Your task to perform on an android device: Open maps Image 0: 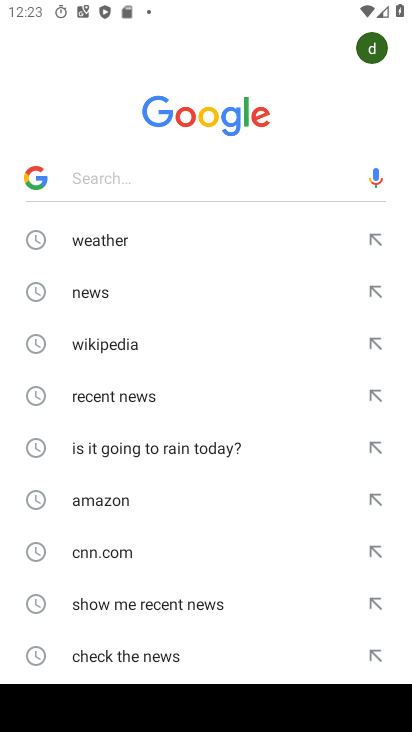
Step 0: press home button
Your task to perform on an android device: Open maps Image 1: 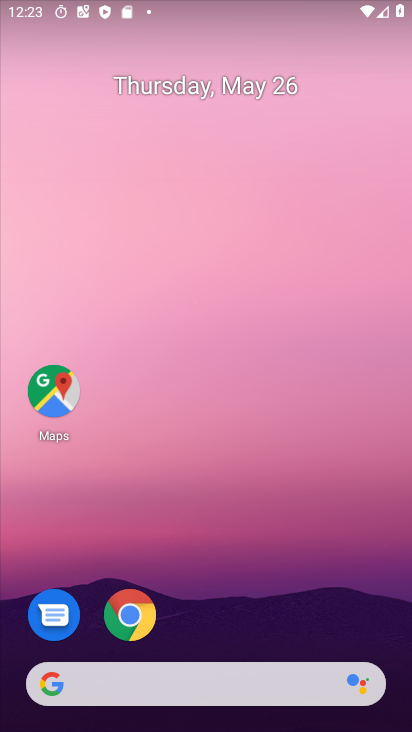
Step 1: click (65, 385)
Your task to perform on an android device: Open maps Image 2: 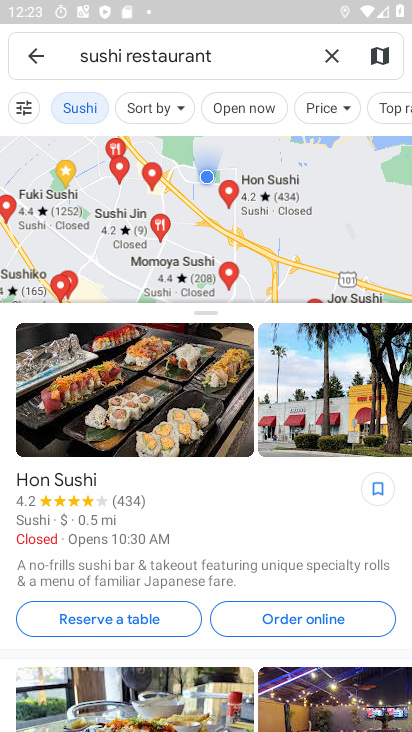
Step 2: task complete